Your task to perform on an android device: Search for Italian restaurants on Maps Image 0: 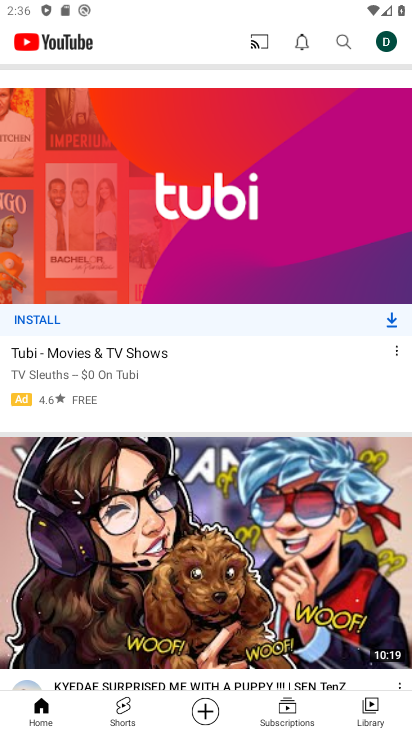
Step 0: press home button
Your task to perform on an android device: Search for Italian restaurants on Maps Image 1: 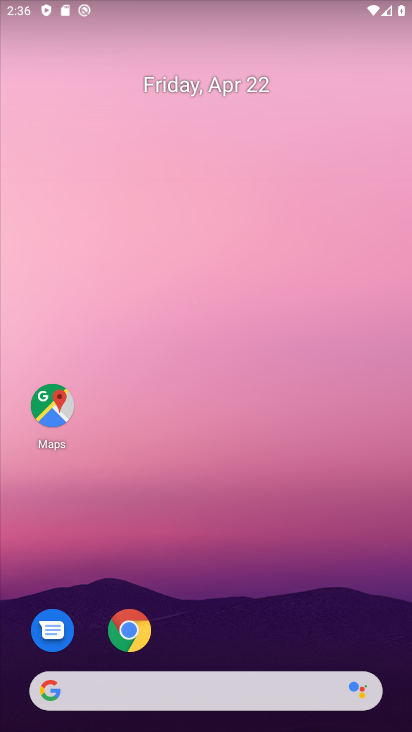
Step 1: drag from (366, 585) to (360, 171)
Your task to perform on an android device: Search for Italian restaurants on Maps Image 2: 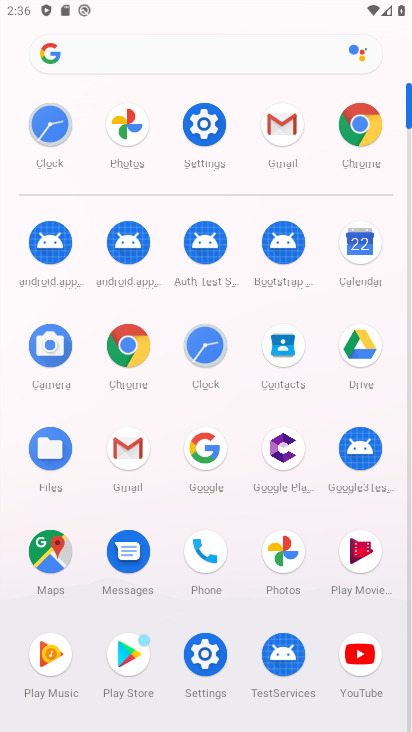
Step 2: click (34, 543)
Your task to perform on an android device: Search for Italian restaurants on Maps Image 3: 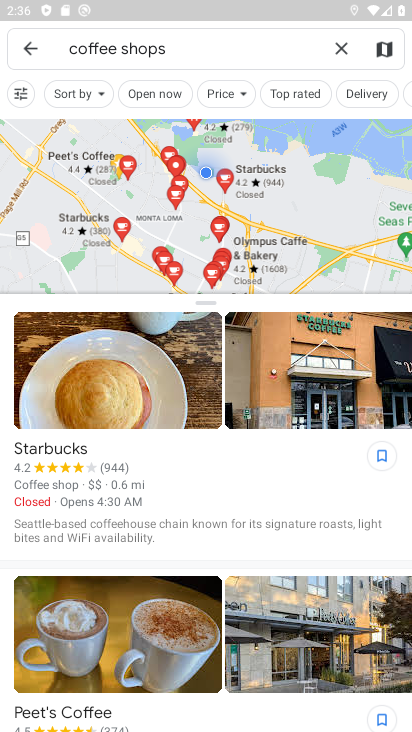
Step 3: click (340, 50)
Your task to perform on an android device: Search for Italian restaurants on Maps Image 4: 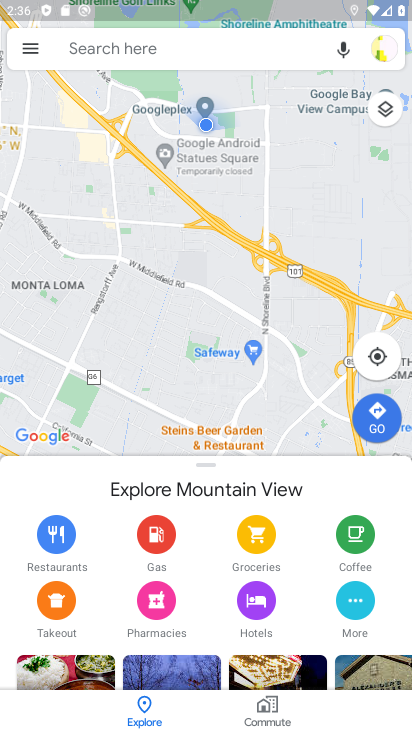
Step 4: click (194, 42)
Your task to perform on an android device: Search for Italian restaurants on Maps Image 5: 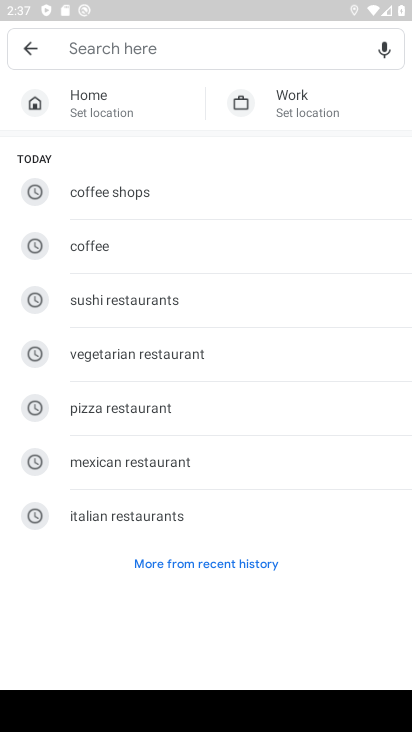
Step 5: type "italian restaurants"
Your task to perform on an android device: Search for Italian restaurants on Maps Image 6: 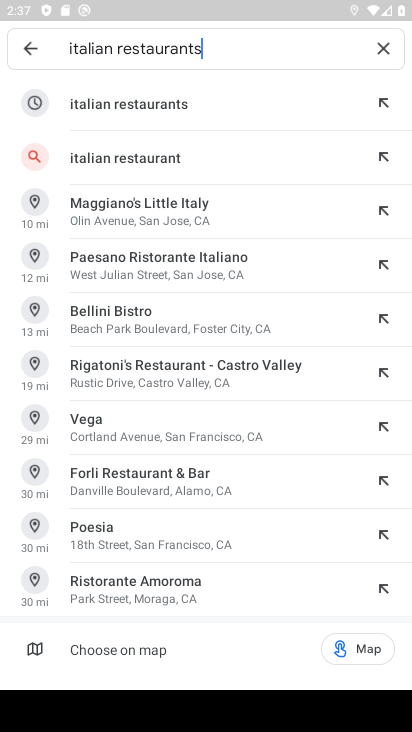
Step 6: click (151, 97)
Your task to perform on an android device: Search for Italian restaurants on Maps Image 7: 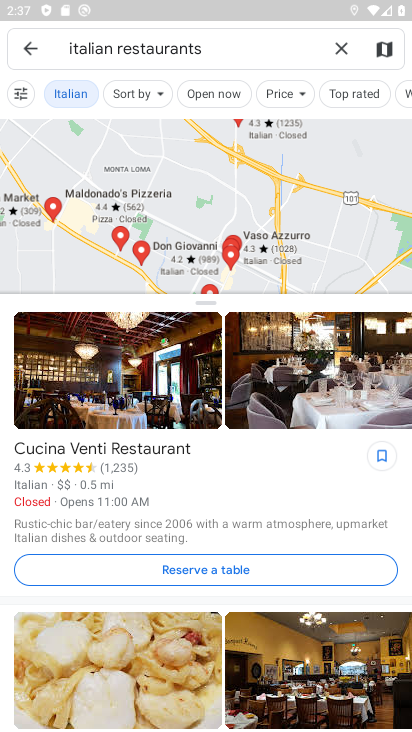
Step 7: task complete